Your task to perform on an android device: read, delete, or share a saved page in the chrome app Image 0: 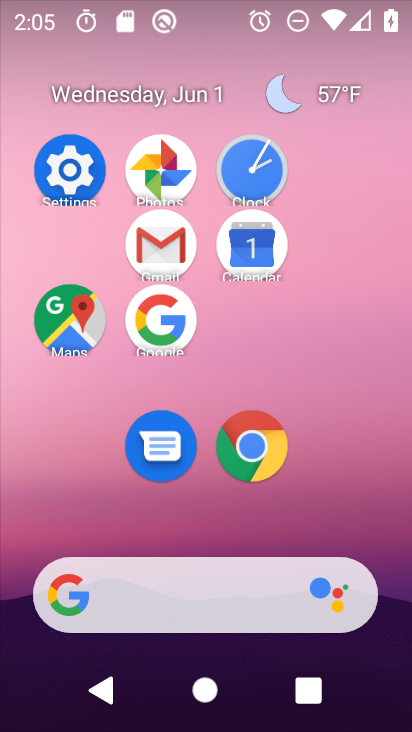
Step 0: click (263, 443)
Your task to perform on an android device: read, delete, or share a saved page in the chrome app Image 1: 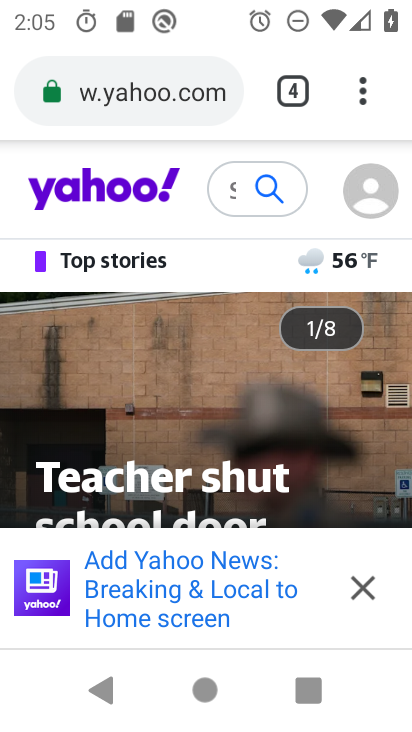
Step 1: click (378, 76)
Your task to perform on an android device: read, delete, or share a saved page in the chrome app Image 2: 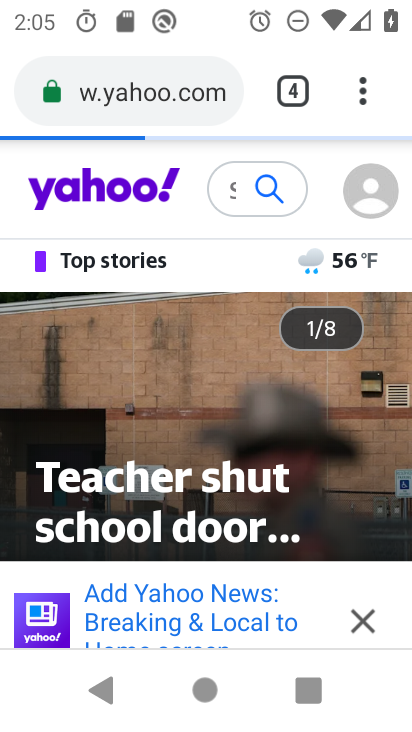
Step 2: click (371, 109)
Your task to perform on an android device: read, delete, or share a saved page in the chrome app Image 3: 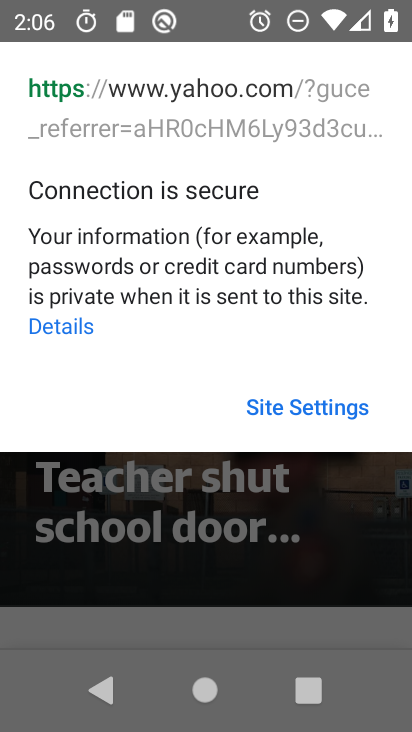
Step 3: click (324, 414)
Your task to perform on an android device: read, delete, or share a saved page in the chrome app Image 4: 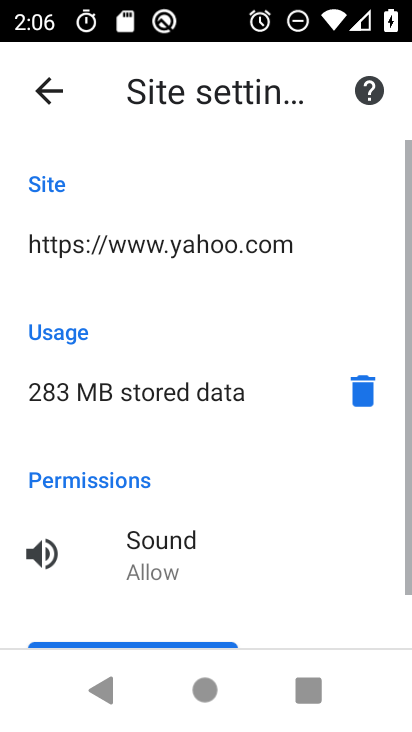
Step 4: click (45, 98)
Your task to perform on an android device: read, delete, or share a saved page in the chrome app Image 5: 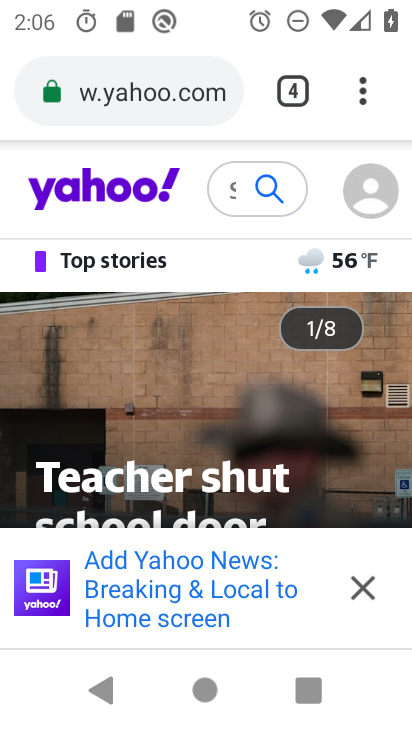
Step 5: click (377, 97)
Your task to perform on an android device: read, delete, or share a saved page in the chrome app Image 6: 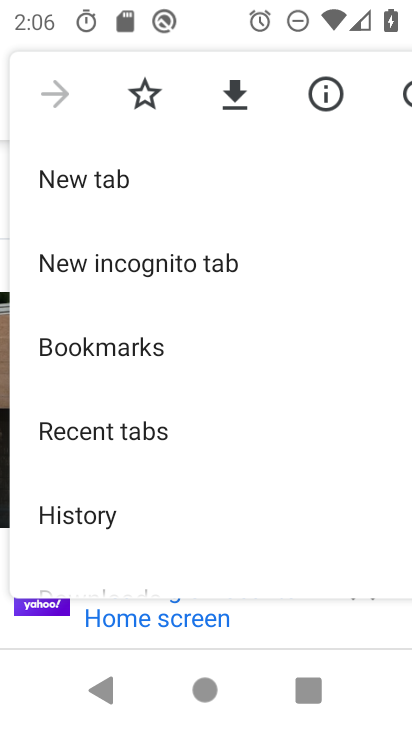
Step 6: drag from (161, 470) to (139, 152)
Your task to perform on an android device: read, delete, or share a saved page in the chrome app Image 7: 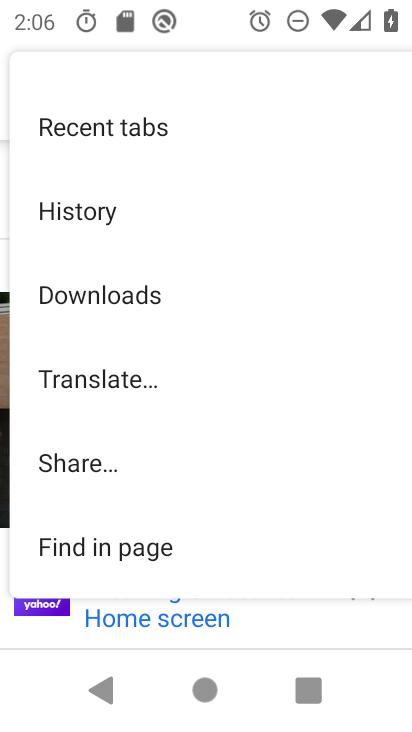
Step 7: click (156, 293)
Your task to perform on an android device: read, delete, or share a saved page in the chrome app Image 8: 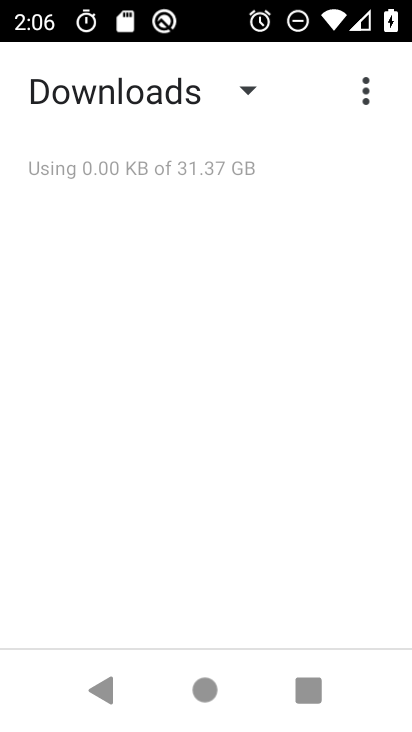
Step 8: task complete